Your task to perform on an android device: delete the emails in spam in the gmail app Image 0: 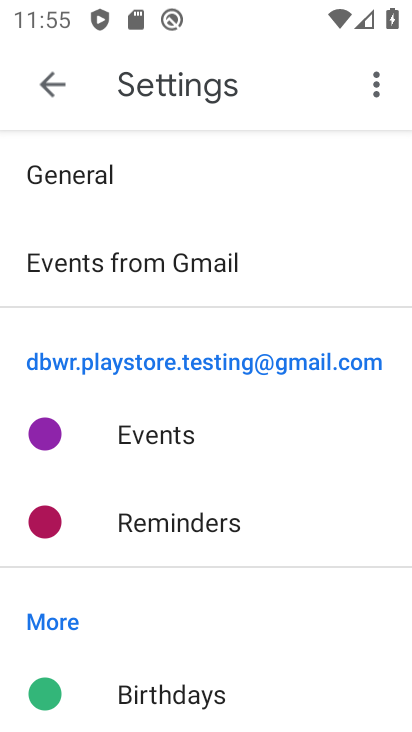
Step 0: press home button
Your task to perform on an android device: delete the emails in spam in the gmail app Image 1: 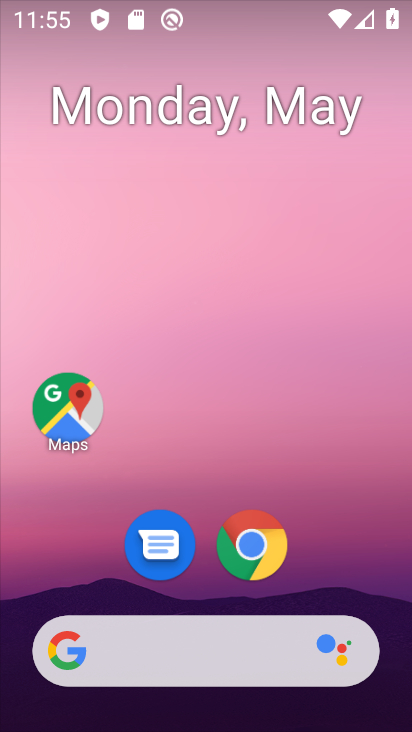
Step 1: drag from (193, 570) to (240, 42)
Your task to perform on an android device: delete the emails in spam in the gmail app Image 2: 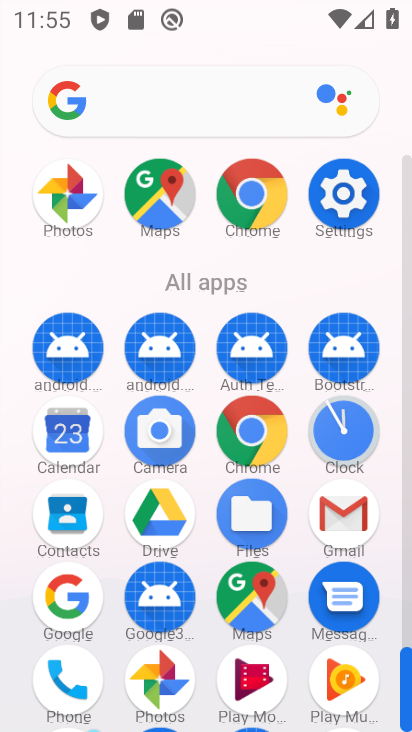
Step 2: click (333, 512)
Your task to perform on an android device: delete the emails in spam in the gmail app Image 3: 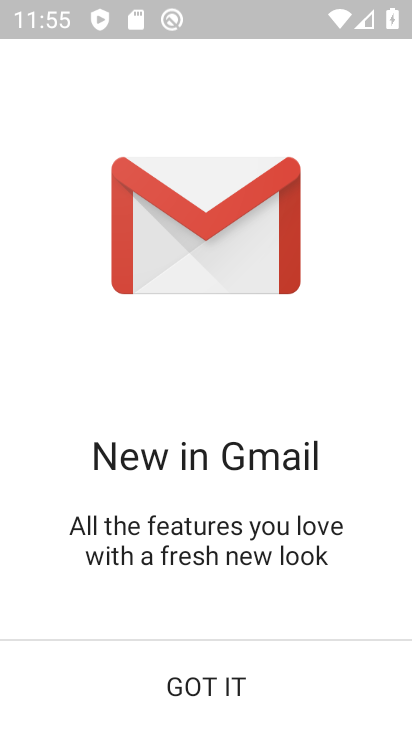
Step 3: click (168, 692)
Your task to perform on an android device: delete the emails in spam in the gmail app Image 4: 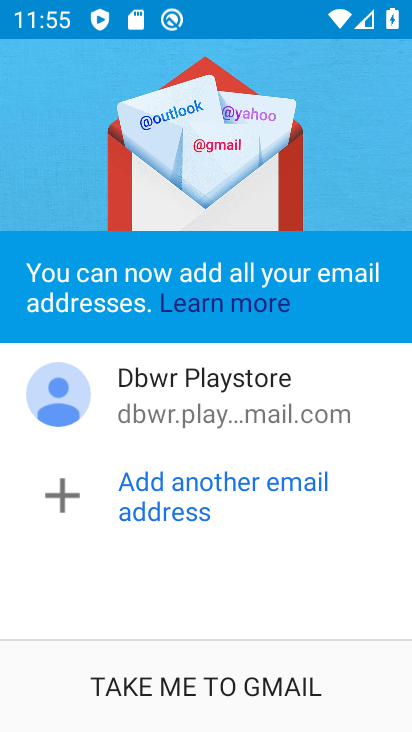
Step 4: click (168, 692)
Your task to perform on an android device: delete the emails in spam in the gmail app Image 5: 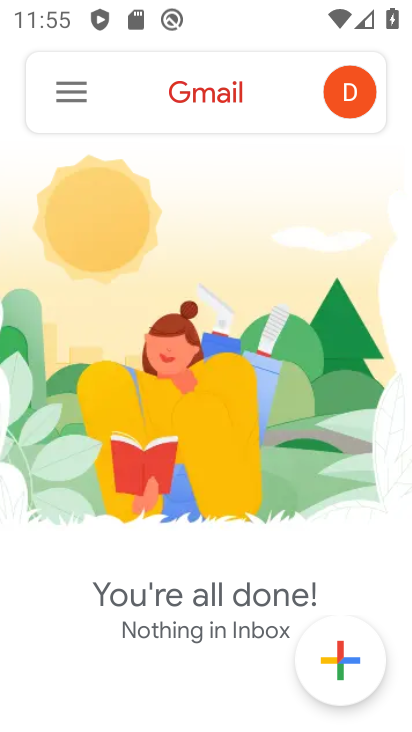
Step 5: click (84, 97)
Your task to perform on an android device: delete the emails in spam in the gmail app Image 6: 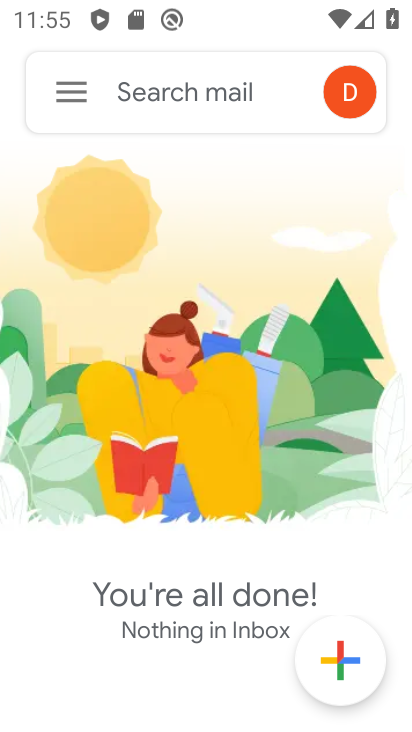
Step 6: click (58, 92)
Your task to perform on an android device: delete the emails in spam in the gmail app Image 7: 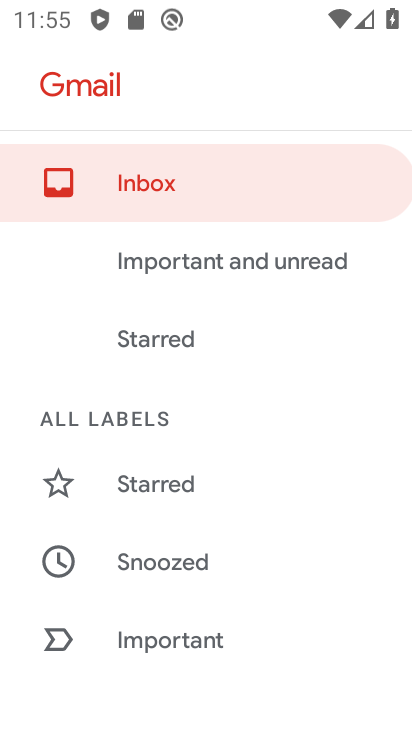
Step 7: drag from (50, 596) to (120, 98)
Your task to perform on an android device: delete the emails in spam in the gmail app Image 8: 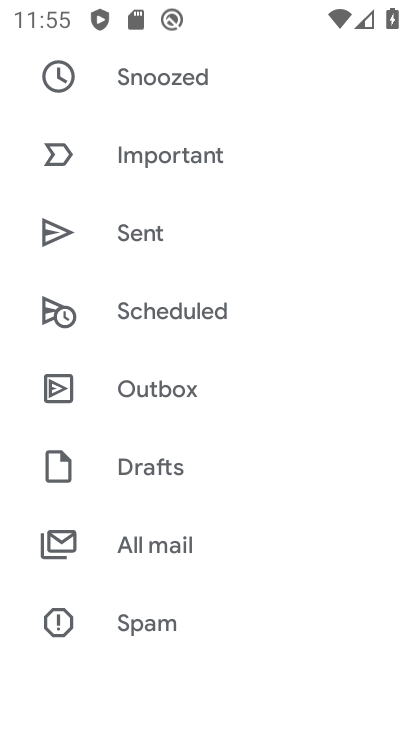
Step 8: click (47, 631)
Your task to perform on an android device: delete the emails in spam in the gmail app Image 9: 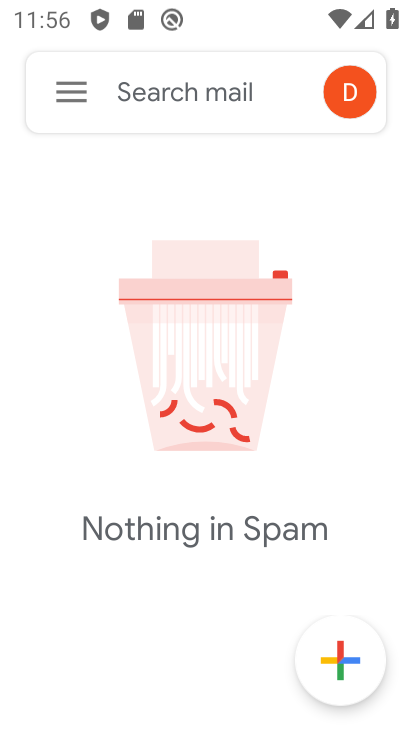
Step 9: task complete